Your task to perform on an android device: Open the calendar and show me this week's events? Image 0: 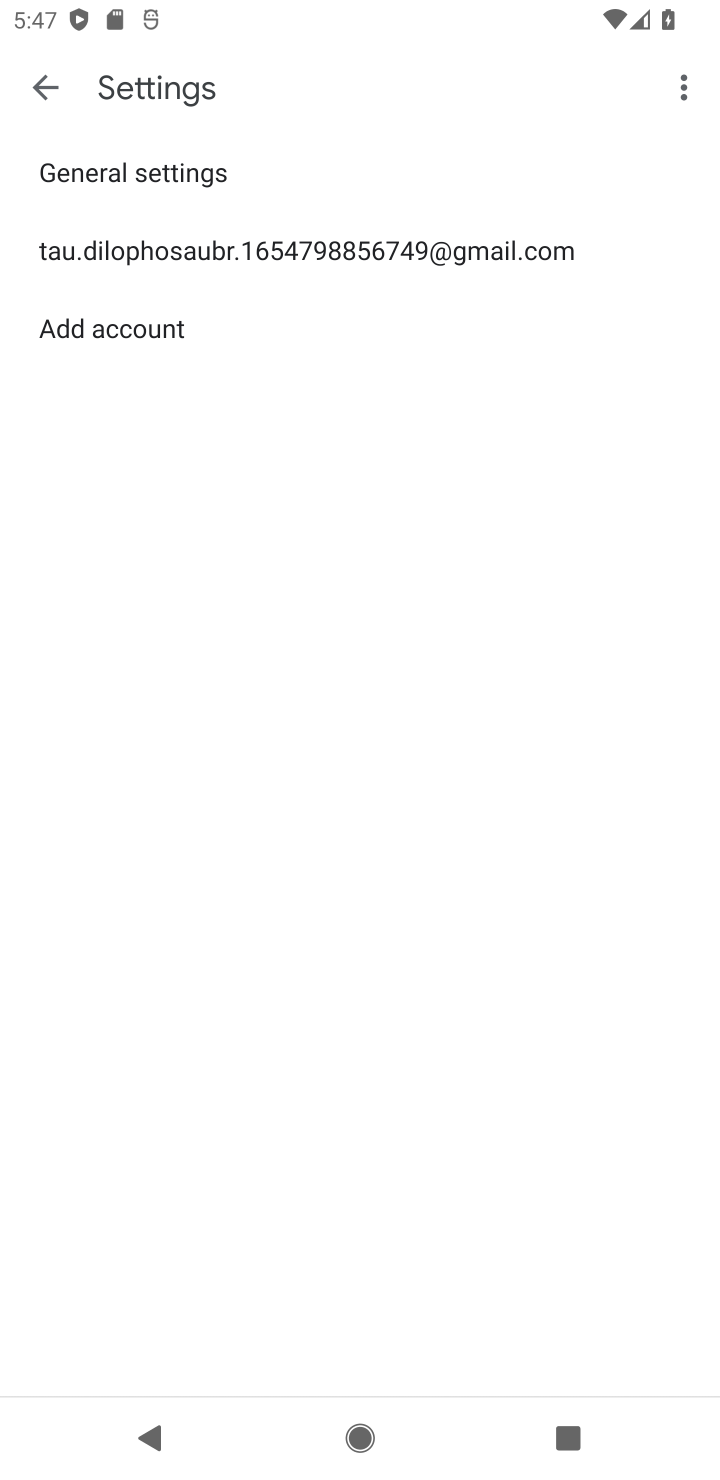
Step 0: press home button
Your task to perform on an android device: Open the calendar and show me this week's events? Image 1: 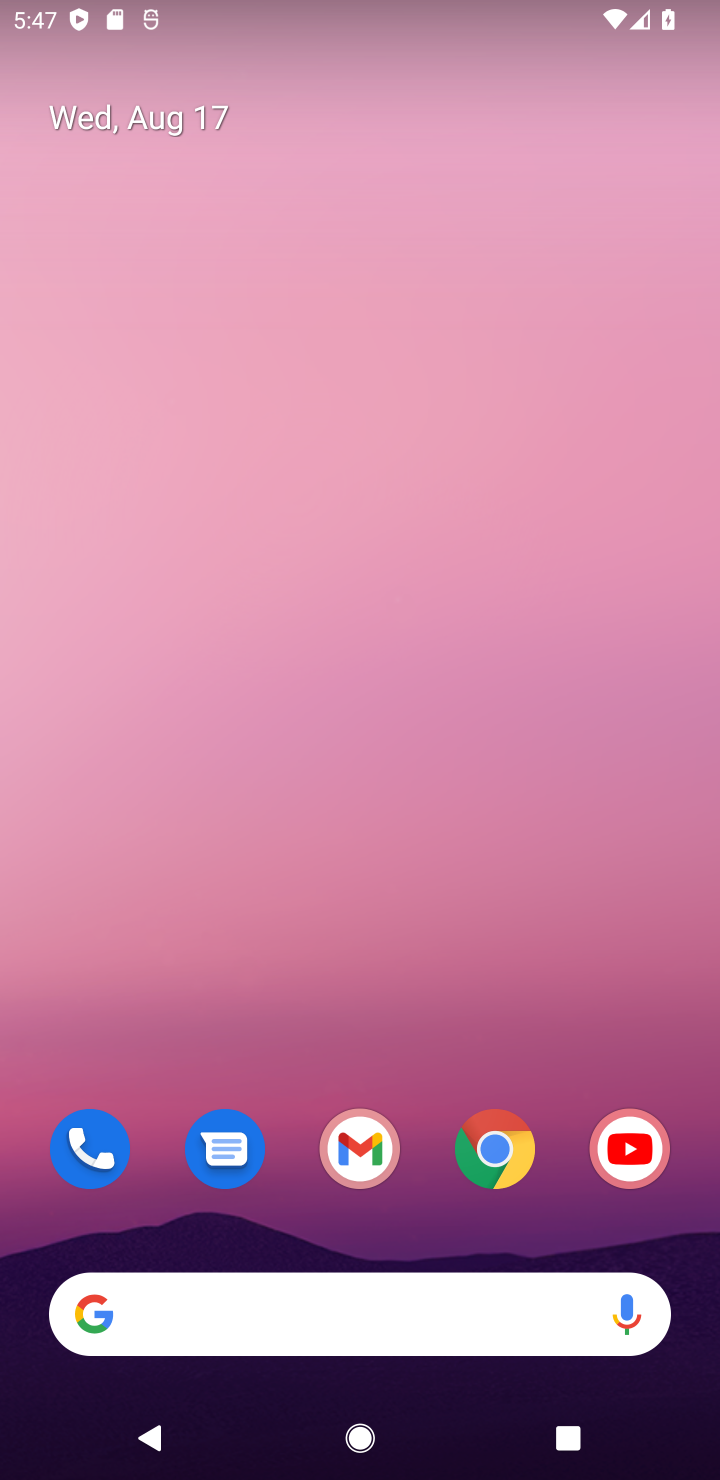
Step 1: drag from (439, 1003) to (321, 0)
Your task to perform on an android device: Open the calendar and show me this week's events? Image 2: 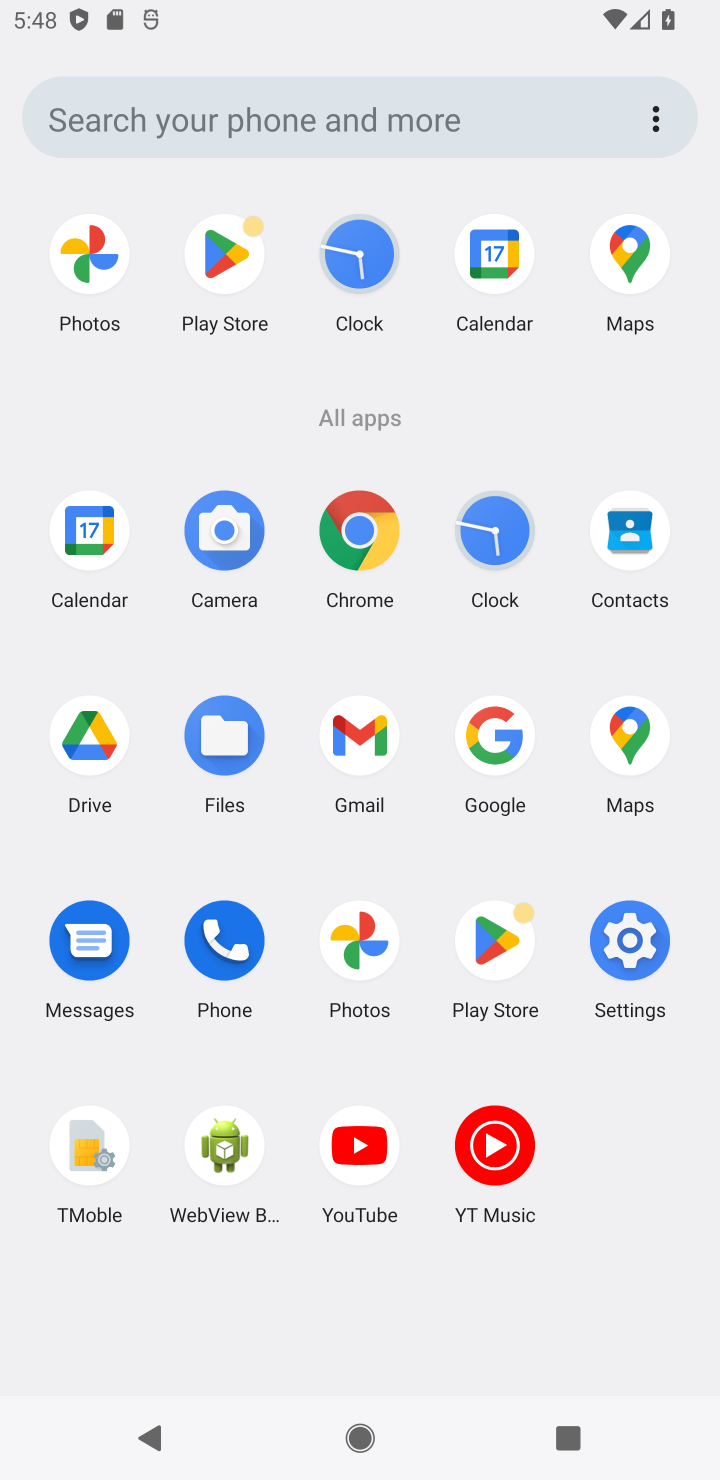
Step 2: click (501, 254)
Your task to perform on an android device: Open the calendar and show me this week's events? Image 3: 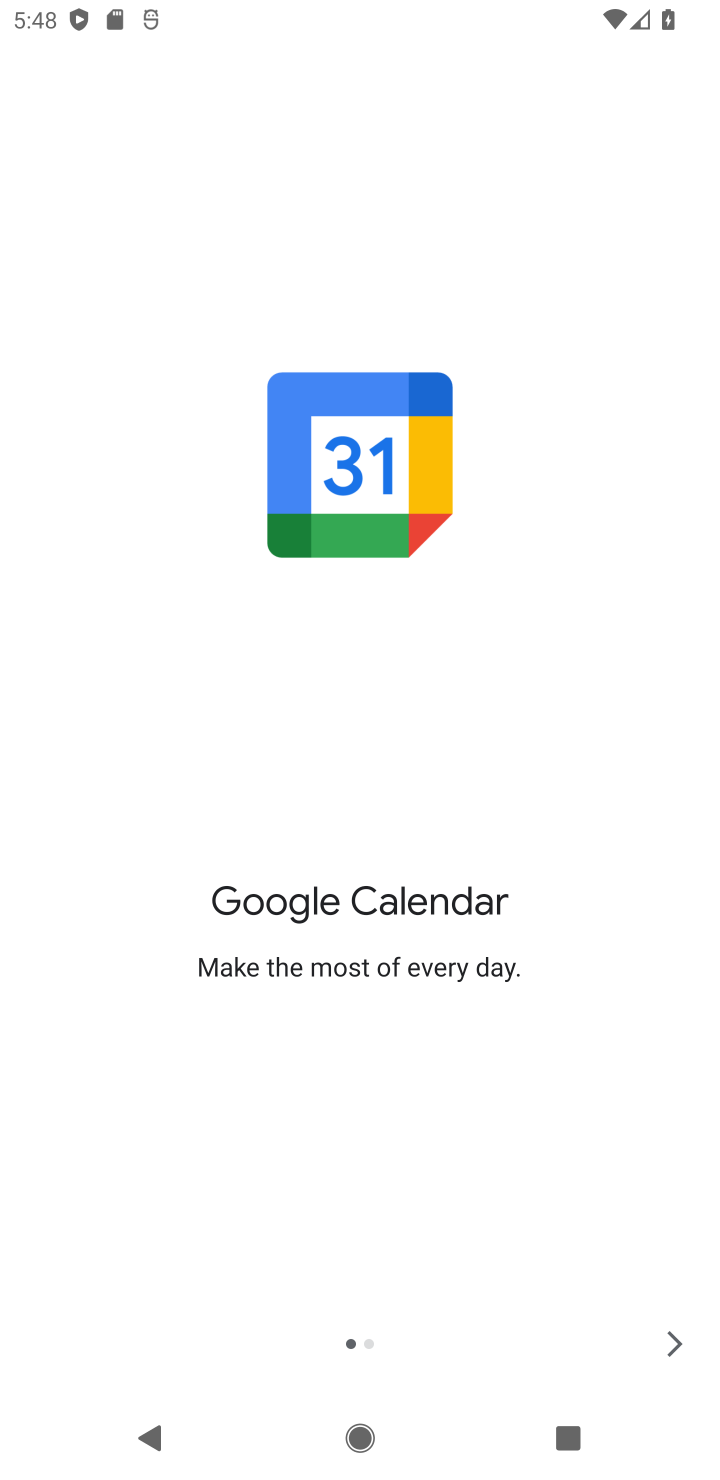
Step 3: click (667, 1337)
Your task to perform on an android device: Open the calendar and show me this week's events? Image 4: 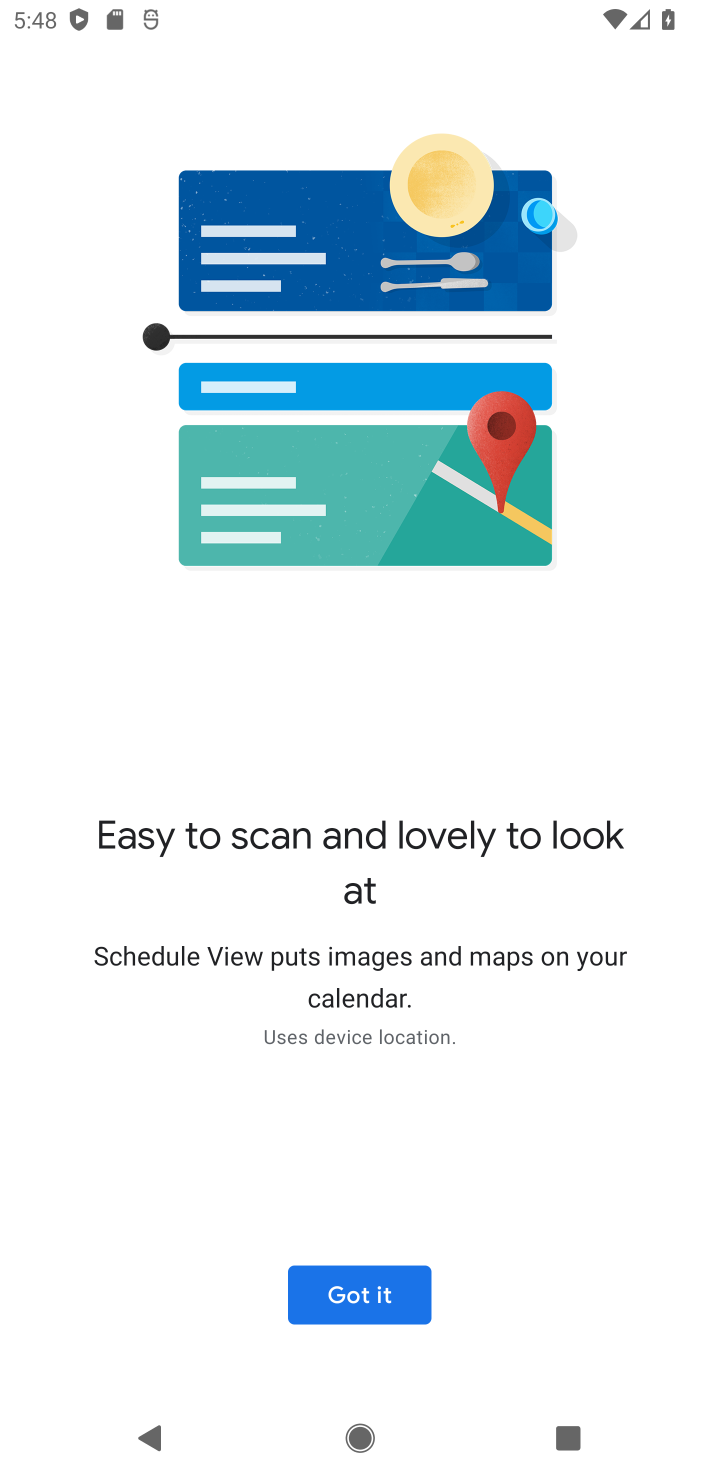
Step 4: click (667, 1337)
Your task to perform on an android device: Open the calendar and show me this week's events? Image 5: 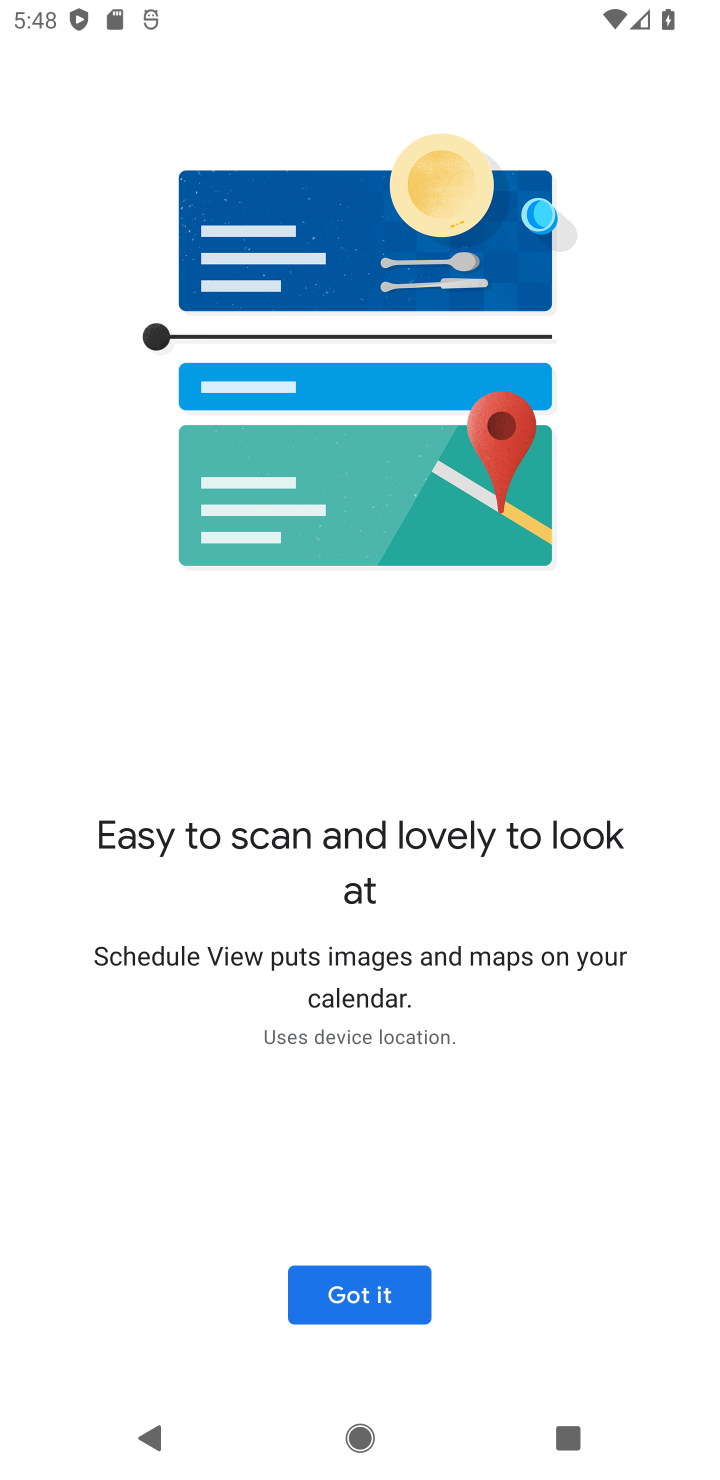
Step 5: click (373, 1303)
Your task to perform on an android device: Open the calendar and show me this week's events? Image 6: 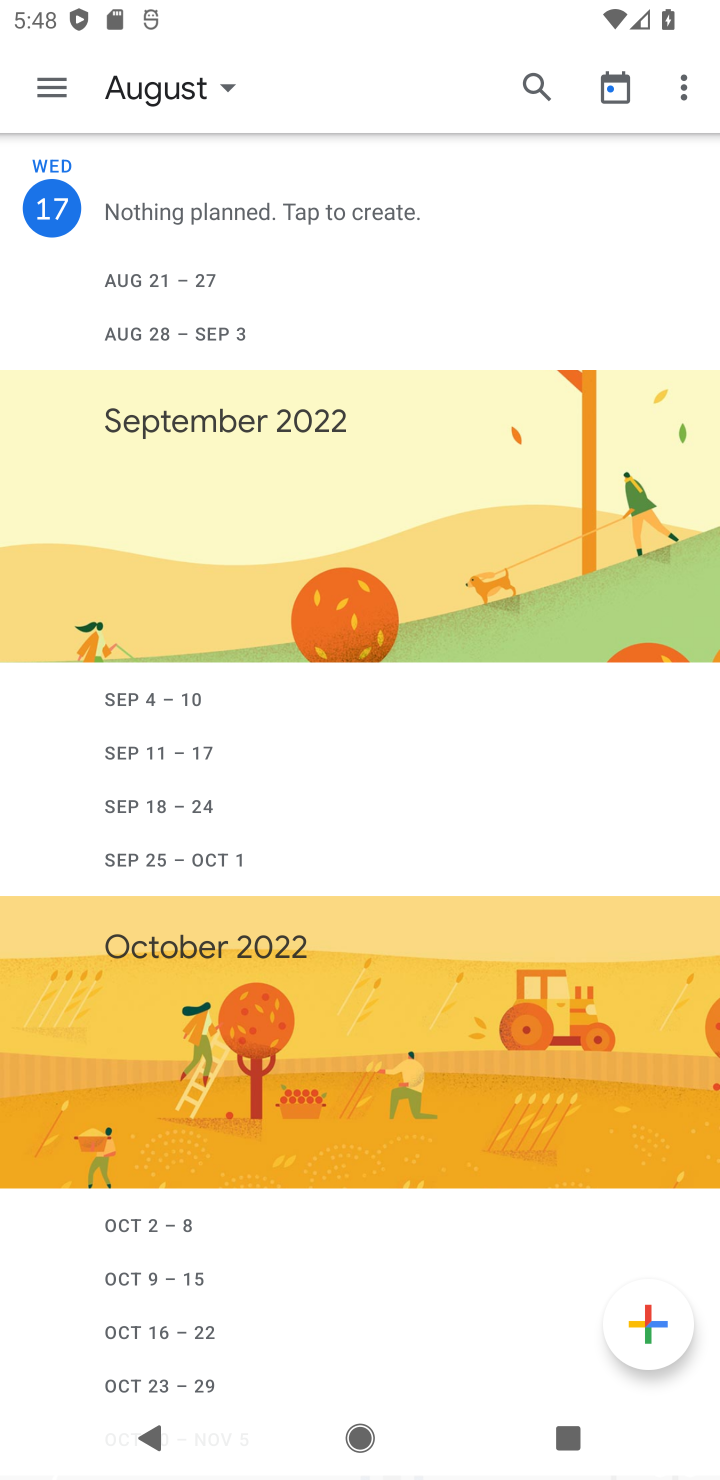
Step 6: click (63, 84)
Your task to perform on an android device: Open the calendar and show me this week's events? Image 7: 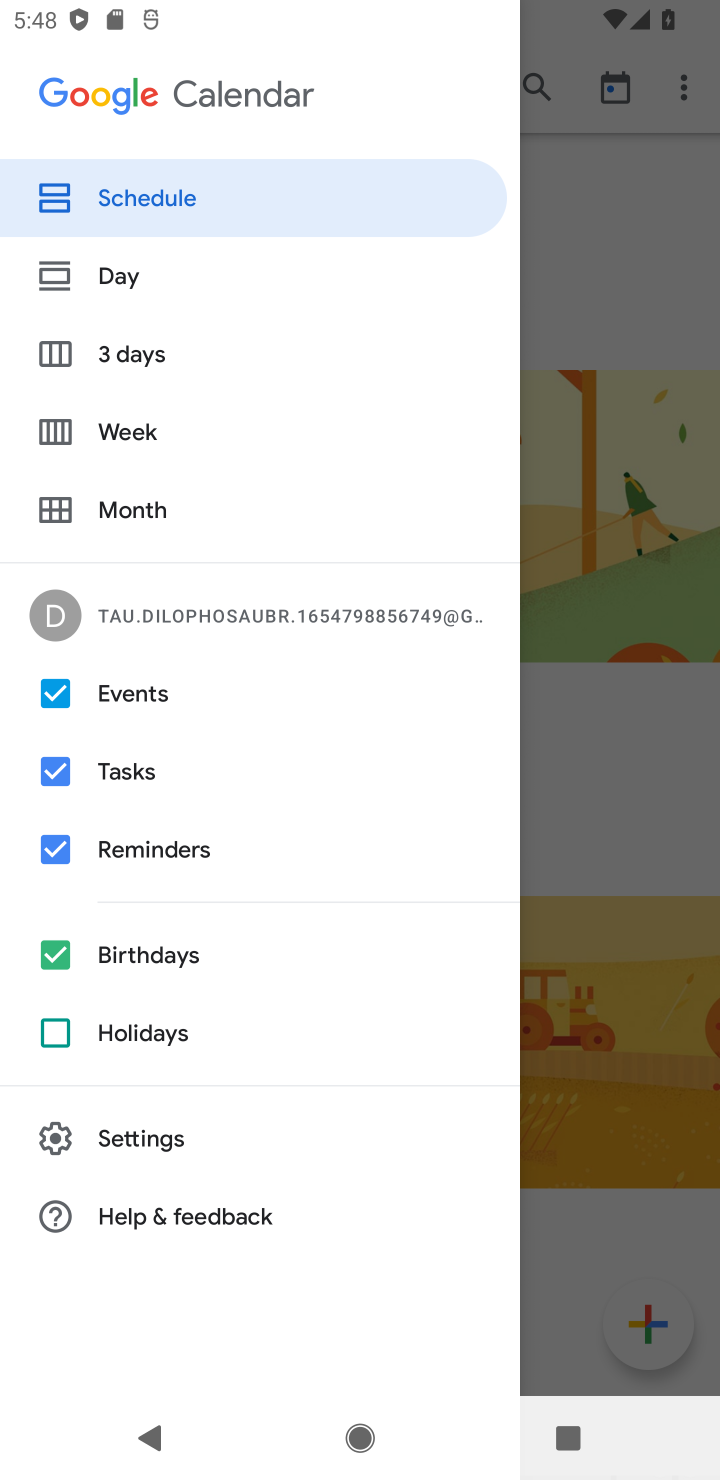
Step 7: click (135, 426)
Your task to perform on an android device: Open the calendar and show me this week's events? Image 8: 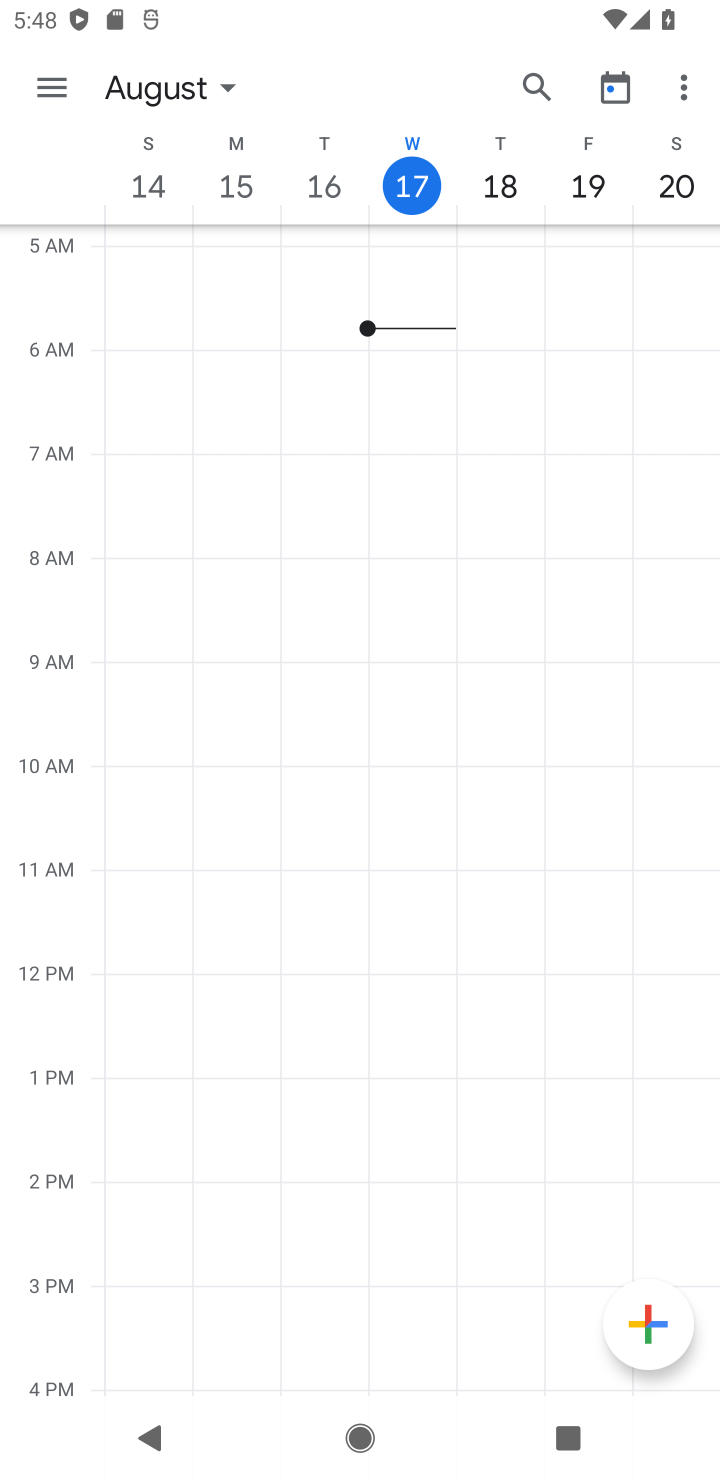
Step 8: task complete